Your task to perform on an android device: toggle notifications settings in the gmail app Image 0: 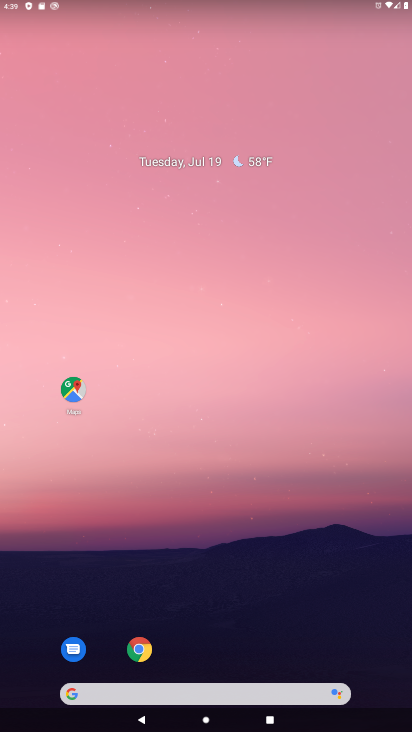
Step 0: drag from (225, 160) to (230, 93)
Your task to perform on an android device: toggle notifications settings in the gmail app Image 1: 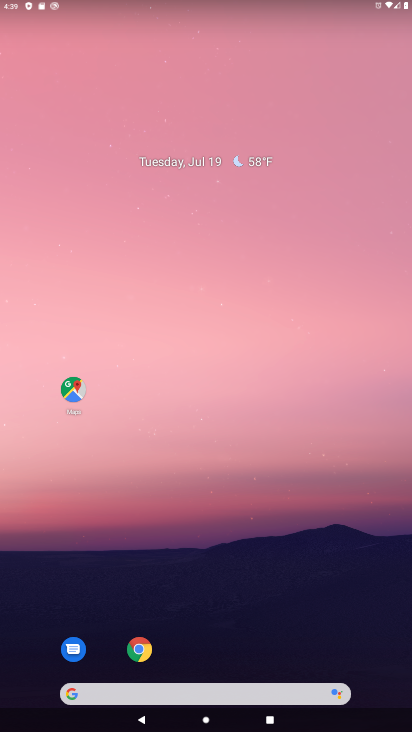
Step 1: drag from (171, 572) to (165, 70)
Your task to perform on an android device: toggle notifications settings in the gmail app Image 2: 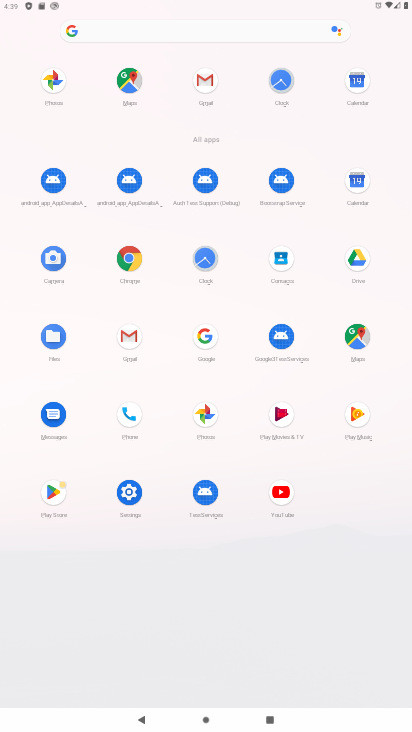
Step 2: click (204, 87)
Your task to perform on an android device: toggle notifications settings in the gmail app Image 3: 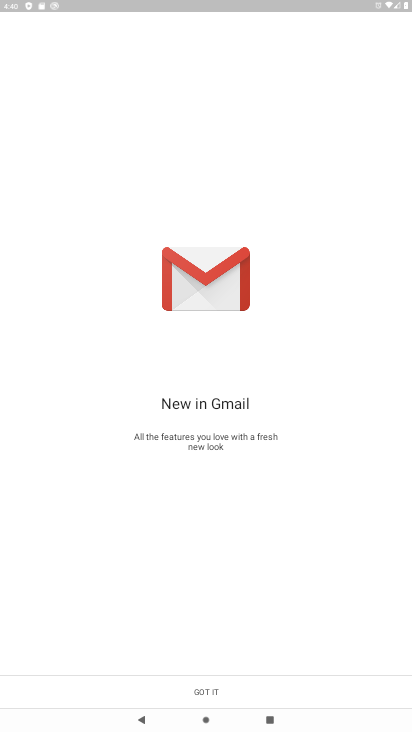
Step 3: click (216, 686)
Your task to perform on an android device: toggle notifications settings in the gmail app Image 4: 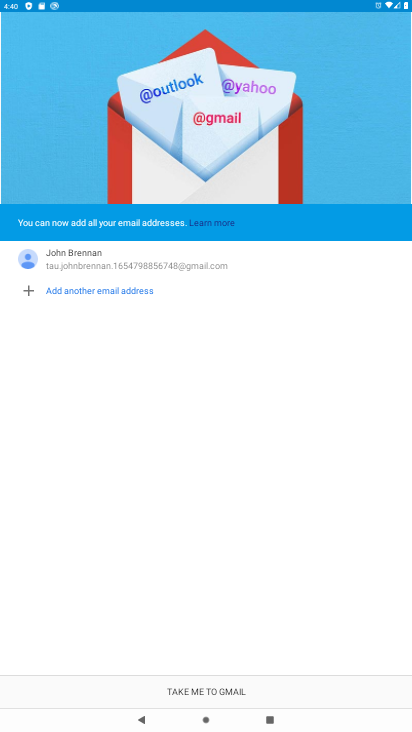
Step 4: click (216, 686)
Your task to perform on an android device: toggle notifications settings in the gmail app Image 5: 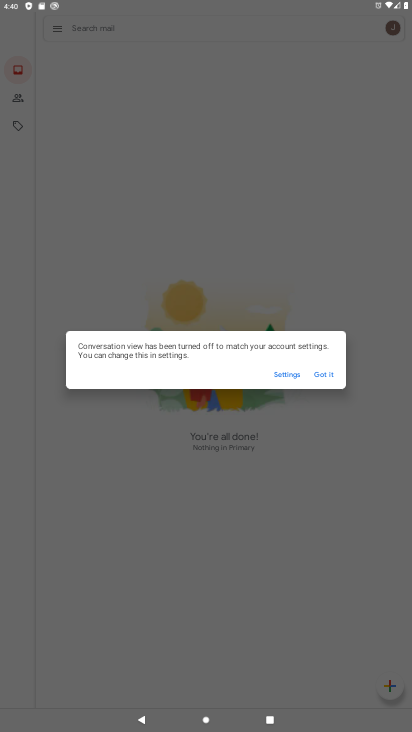
Step 5: click (318, 374)
Your task to perform on an android device: toggle notifications settings in the gmail app Image 6: 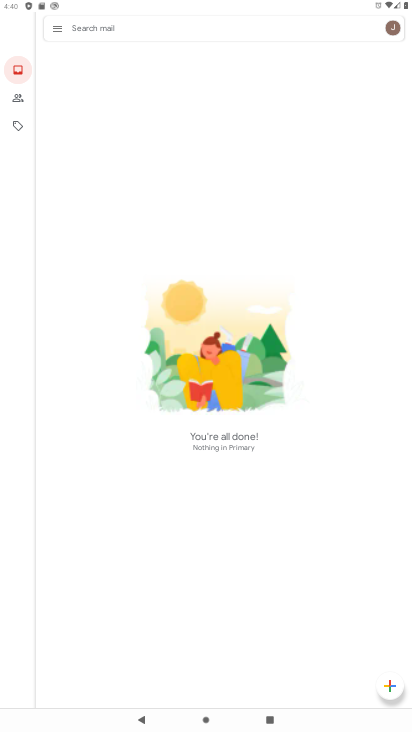
Step 6: click (57, 26)
Your task to perform on an android device: toggle notifications settings in the gmail app Image 7: 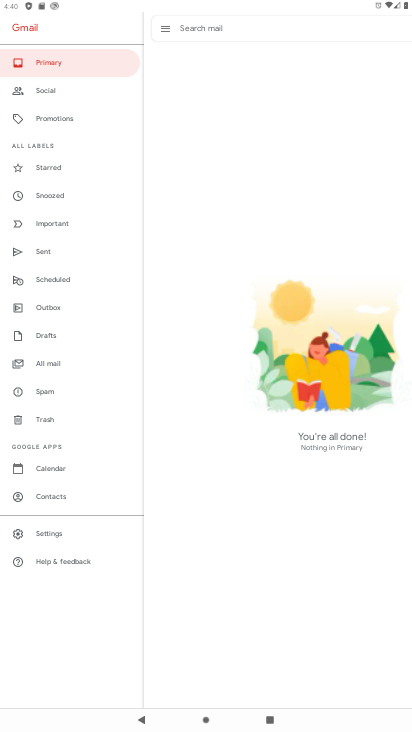
Step 7: click (44, 533)
Your task to perform on an android device: toggle notifications settings in the gmail app Image 8: 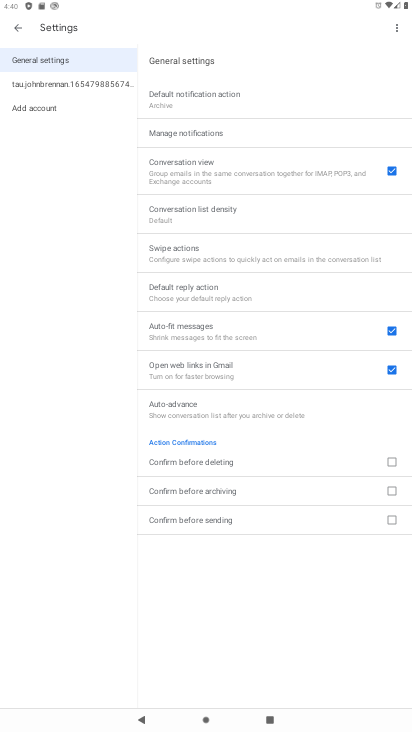
Step 8: click (91, 83)
Your task to perform on an android device: toggle notifications settings in the gmail app Image 9: 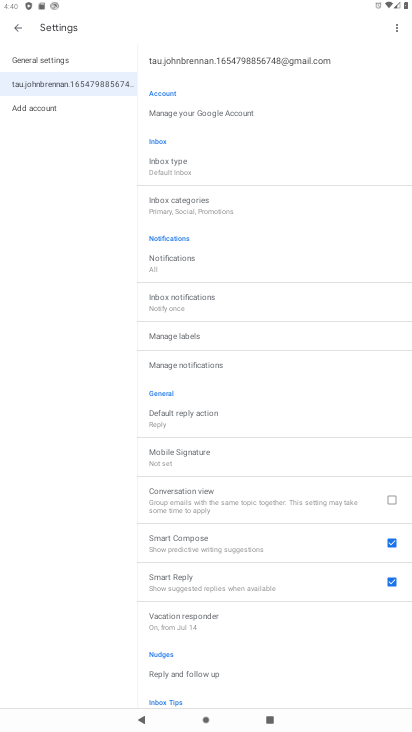
Step 9: click (172, 362)
Your task to perform on an android device: toggle notifications settings in the gmail app Image 10: 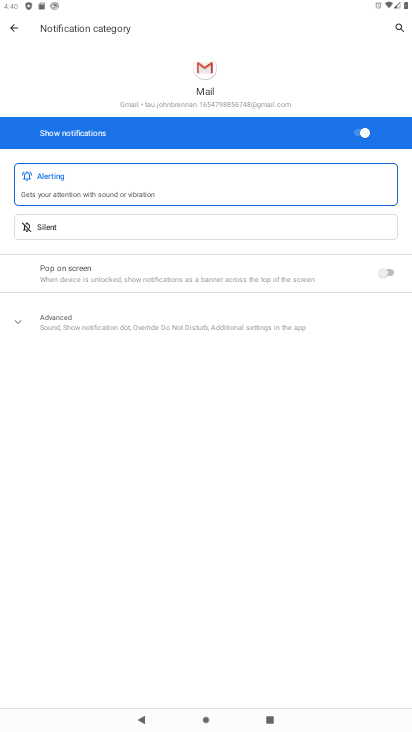
Step 10: click (357, 137)
Your task to perform on an android device: toggle notifications settings in the gmail app Image 11: 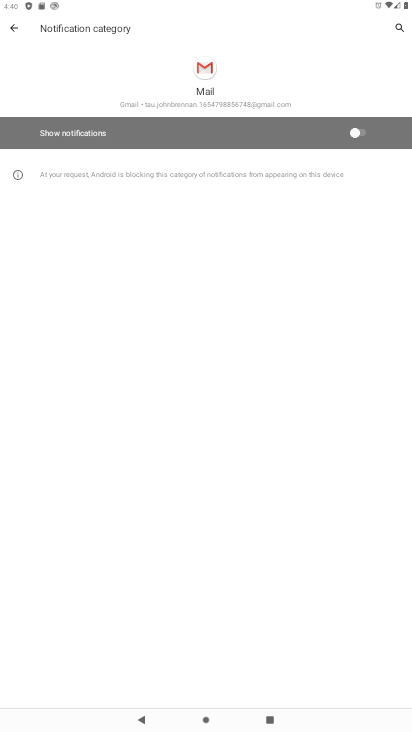
Step 11: task complete